Your task to perform on an android device: Go to display settings Image 0: 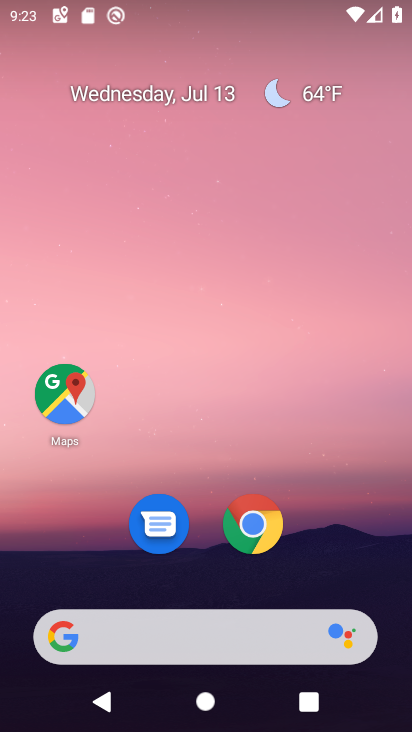
Step 0: drag from (147, 578) to (108, 103)
Your task to perform on an android device: Go to display settings Image 1: 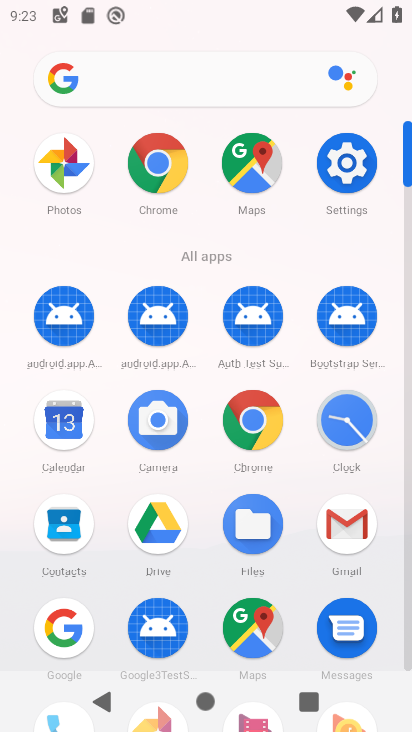
Step 1: click (365, 151)
Your task to perform on an android device: Go to display settings Image 2: 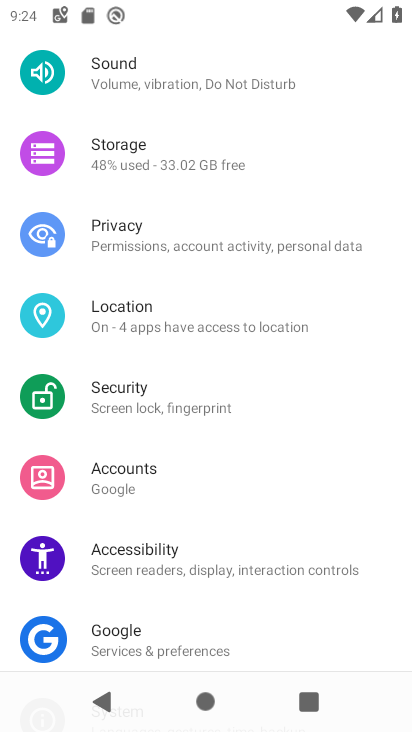
Step 2: drag from (117, 131) to (103, 489)
Your task to perform on an android device: Go to display settings Image 3: 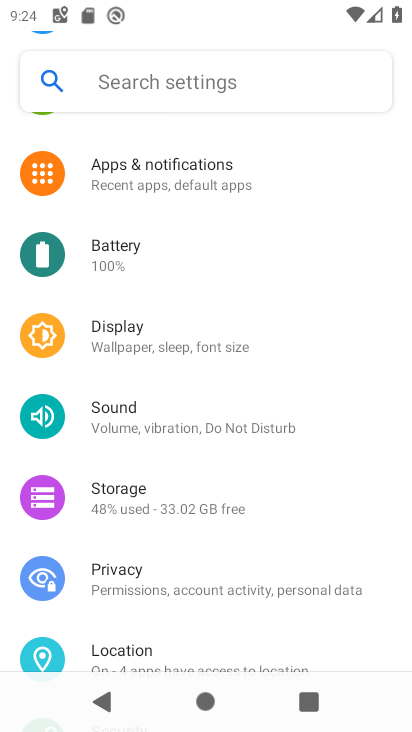
Step 3: click (113, 329)
Your task to perform on an android device: Go to display settings Image 4: 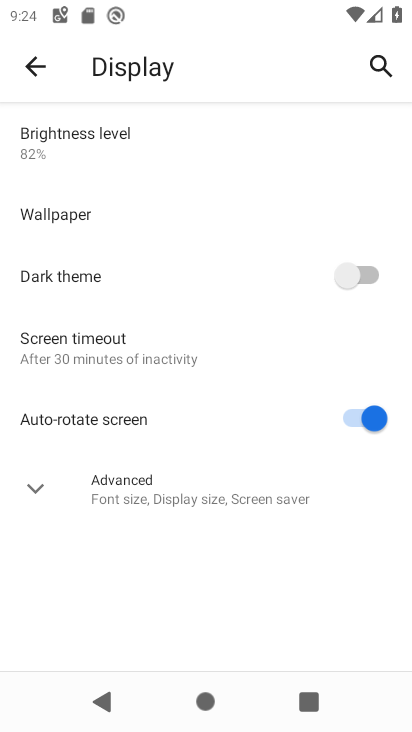
Step 4: task complete